Your task to perform on an android device: show emergency info Image 0: 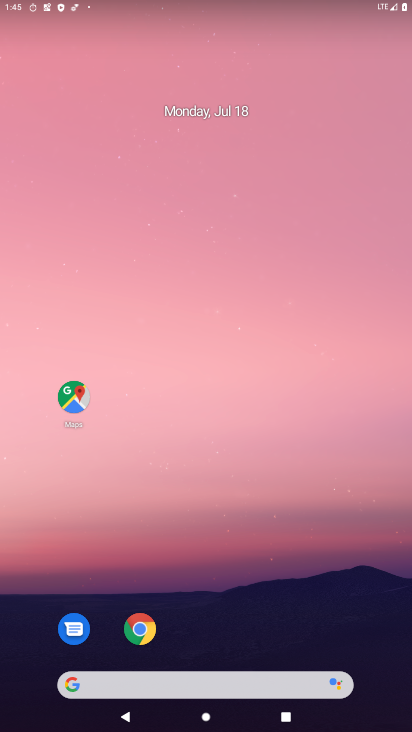
Step 0: press home button
Your task to perform on an android device: show emergency info Image 1: 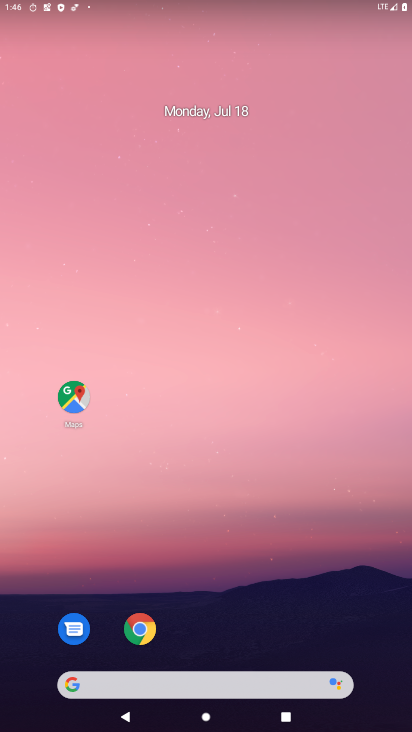
Step 1: drag from (222, 651) to (238, 47)
Your task to perform on an android device: show emergency info Image 2: 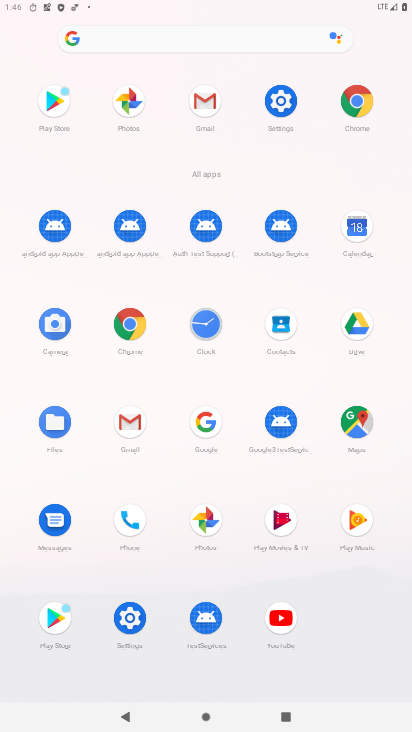
Step 2: click (278, 94)
Your task to perform on an android device: show emergency info Image 3: 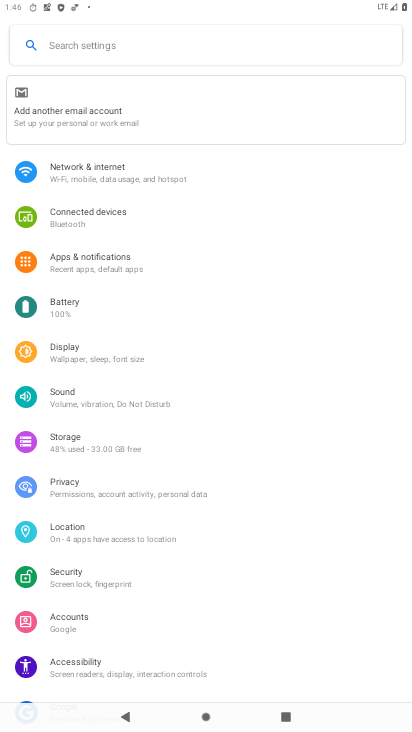
Step 3: drag from (199, 654) to (211, 97)
Your task to perform on an android device: show emergency info Image 4: 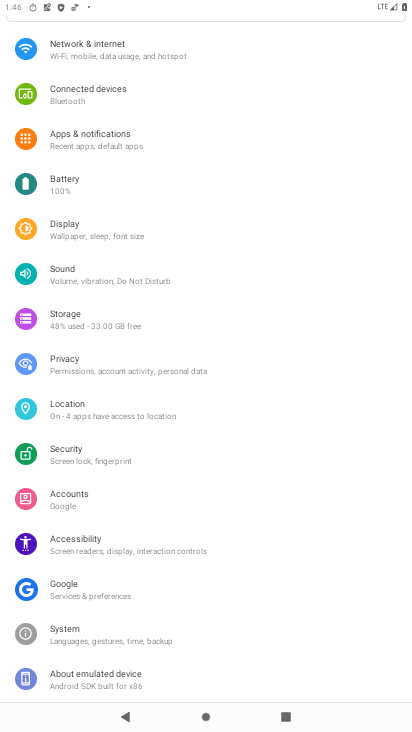
Step 4: click (148, 678)
Your task to perform on an android device: show emergency info Image 5: 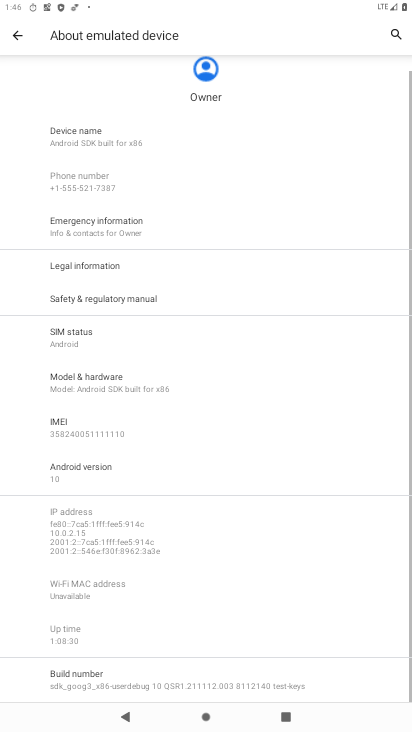
Step 5: click (151, 221)
Your task to perform on an android device: show emergency info Image 6: 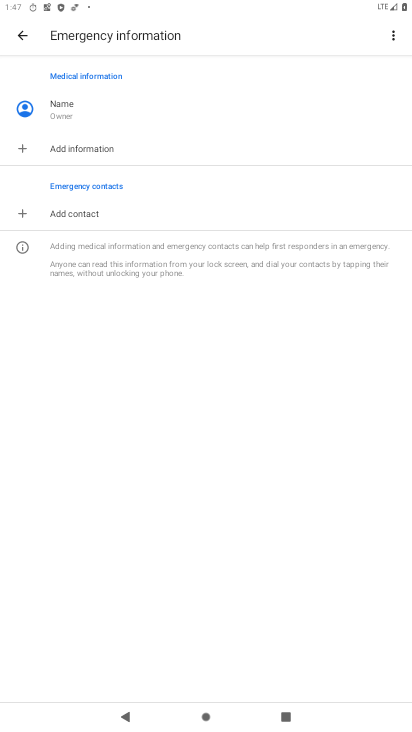
Step 6: task complete